Your task to perform on an android device: Go to Yahoo.com Image 0: 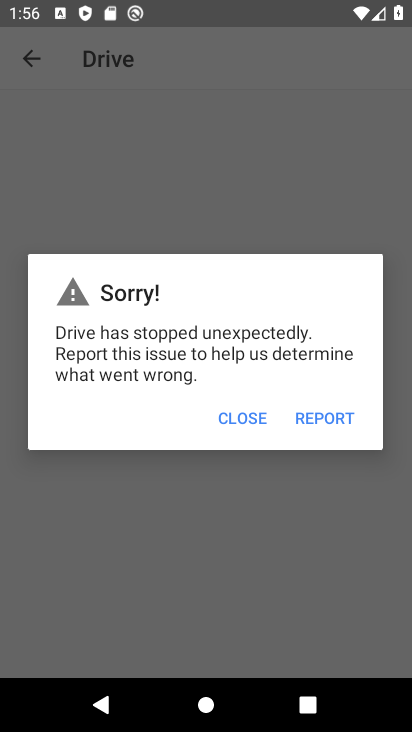
Step 0: press home button
Your task to perform on an android device: Go to Yahoo.com Image 1: 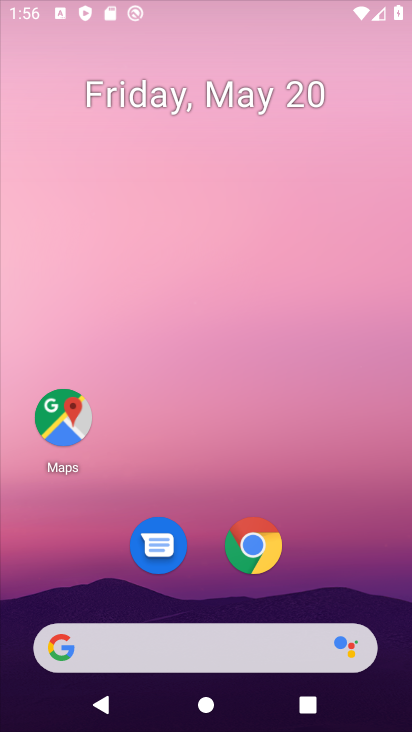
Step 1: drag from (159, 635) to (231, 39)
Your task to perform on an android device: Go to Yahoo.com Image 2: 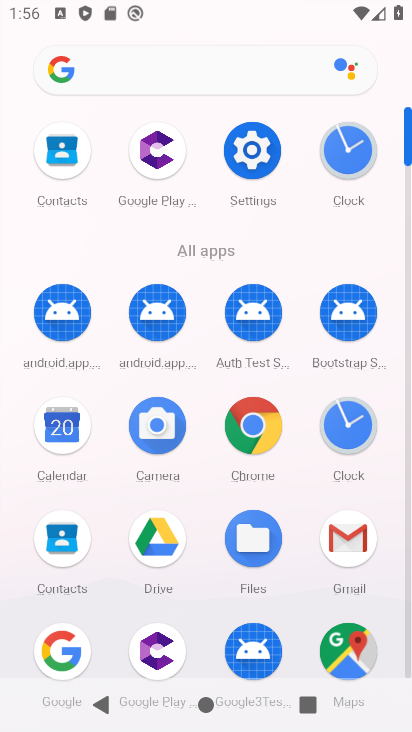
Step 2: click (245, 434)
Your task to perform on an android device: Go to Yahoo.com Image 3: 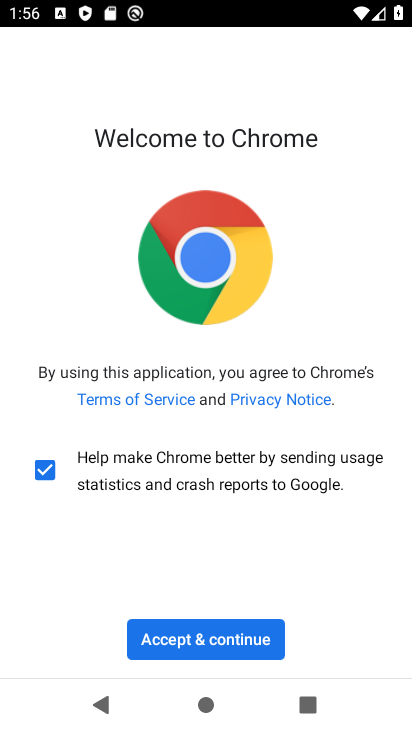
Step 3: click (170, 636)
Your task to perform on an android device: Go to Yahoo.com Image 4: 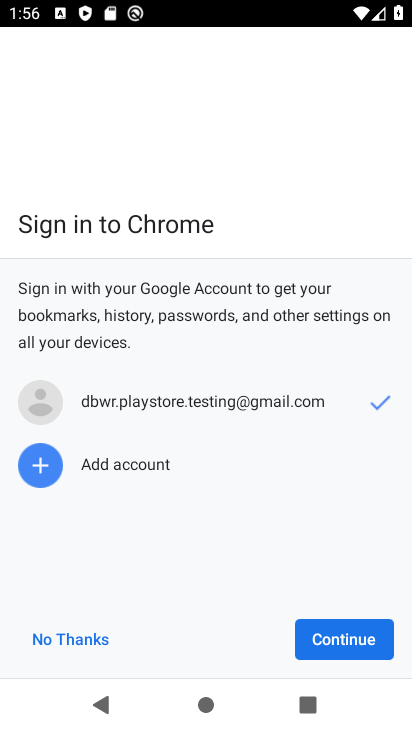
Step 4: click (59, 642)
Your task to perform on an android device: Go to Yahoo.com Image 5: 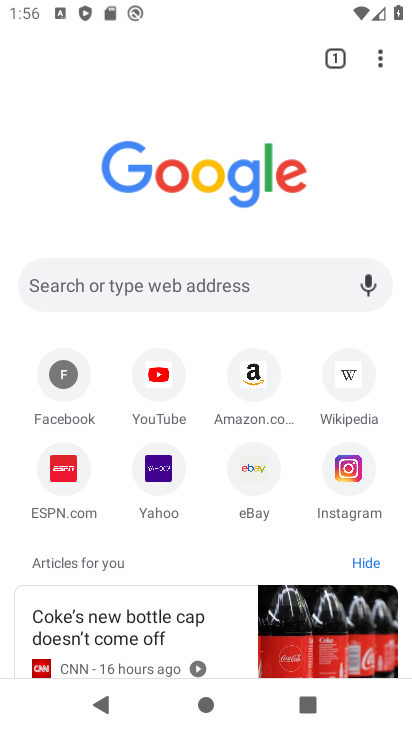
Step 5: click (154, 480)
Your task to perform on an android device: Go to Yahoo.com Image 6: 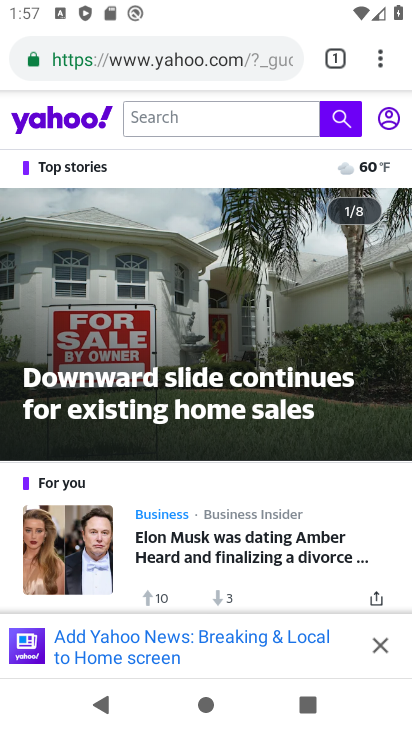
Step 6: task complete